Your task to perform on an android device: Set the phone to "Do not disturb". Image 0: 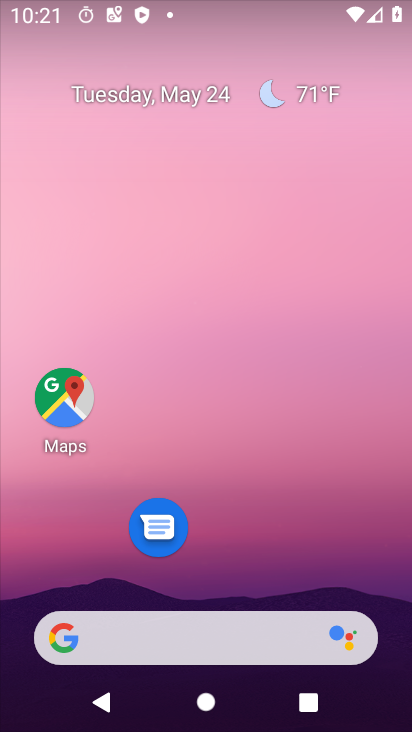
Step 0: drag from (273, 522) to (258, 47)
Your task to perform on an android device: Set the phone to "Do not disturb". Image 1: 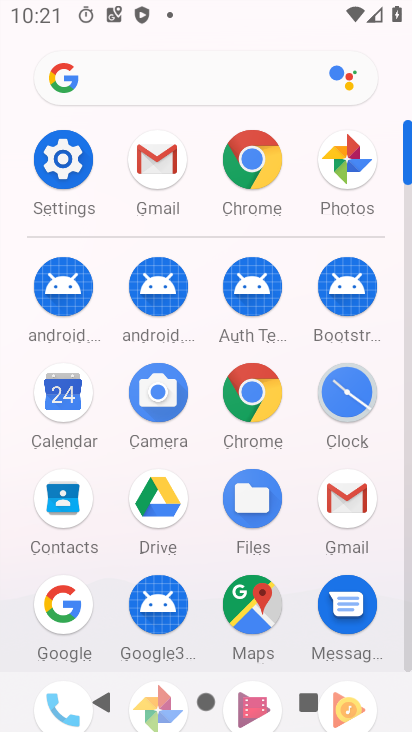
Step 1: click (62, 153)
Your task to perform on an android device: Set the phone to "Do not disturb". Image 2: 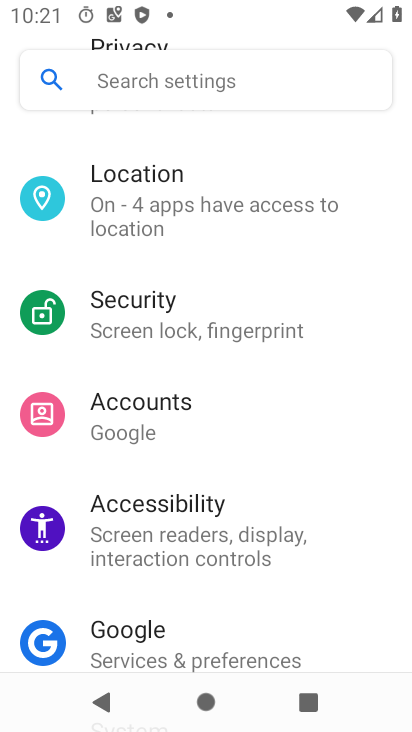
Step 2: drag from (235, 535) to (291, 625)
Your task to perform on an android device: Set the phone to "Do not disturb". Image 3: 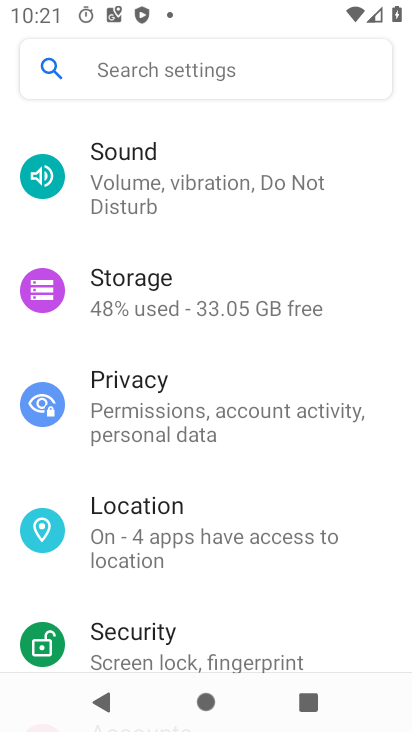
Step 3: drag from (225, 196) to (265, 520)
Your task to perform on an android device: Set the phone to "Do not disturb". Image 4: 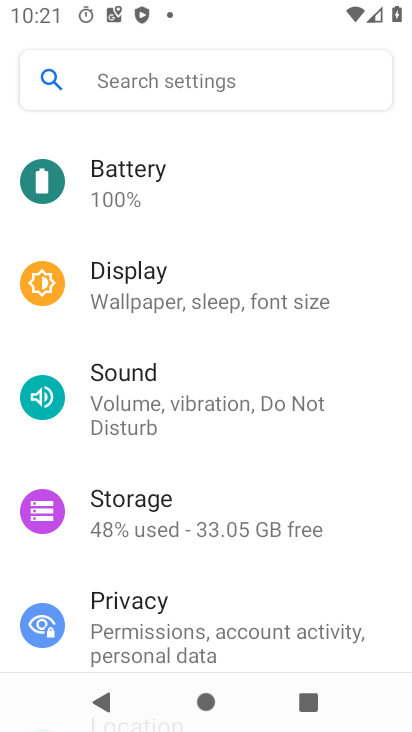
Step 4: click (172, 415)
Your task to perform on an android device: Set the phone to "Do not disturb". Image 5: 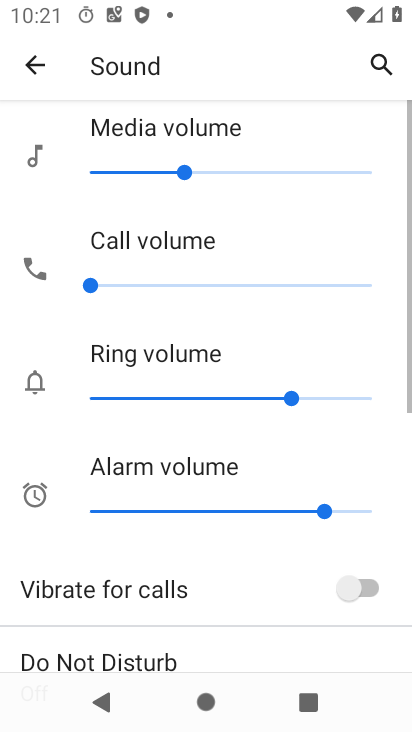
Step 5: drag from (232, 641) to (239, 346)
Your task to perform on an android device: Set the phone to "Do not disturb". Image 6: 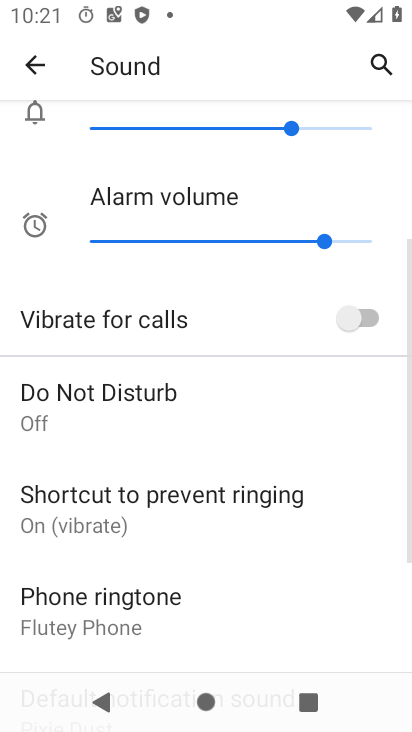
Step 6: click (126, 382)
Your task to perform on an android device: Set the phone to "Do not disturb". Image 7: 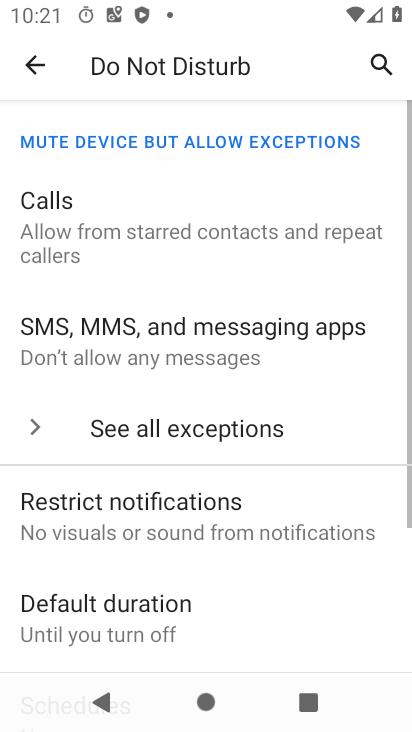
Step 7: drag from (197, 600) to (314, 111)
Your task to perform on an android device: Set the phone to "Do not disturb". Image 8: 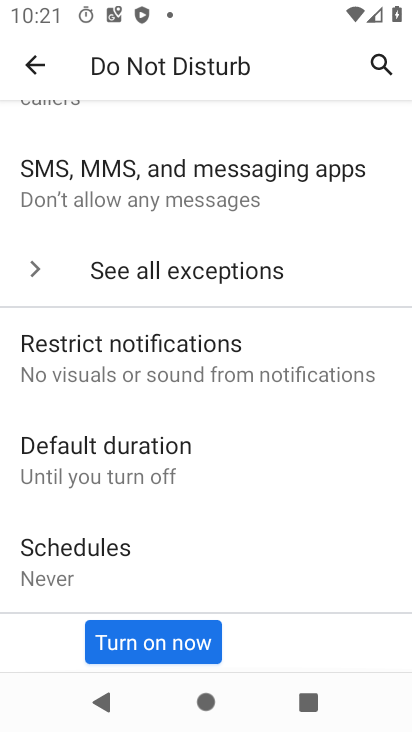
Step 8: click (167, 639)
Your task to perform on an android device: Set the phone to "Do not disturb". Image 9: 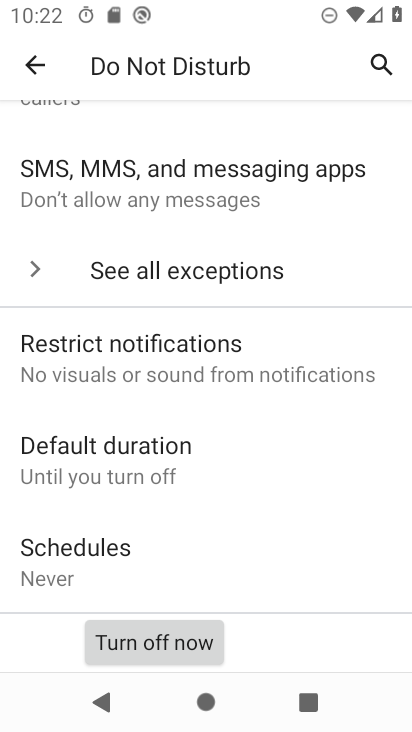
Step 9: task complete